Your task to perform on an android device: turn pop-ups off in chrome Image 0: 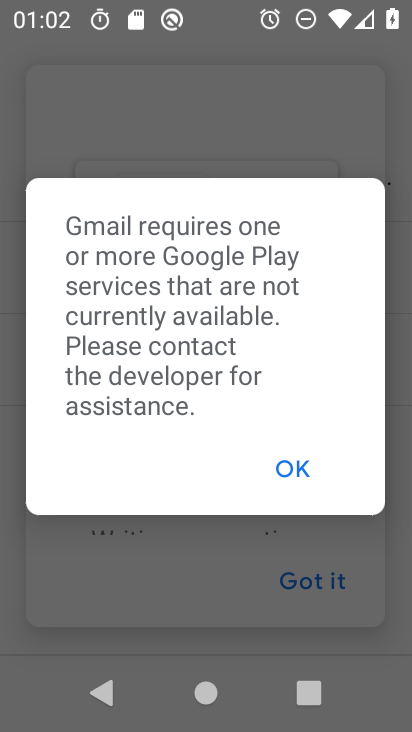
Step 0: press home button
Your task to perform on an android device: turn pop-ups off in chrome Image 1: 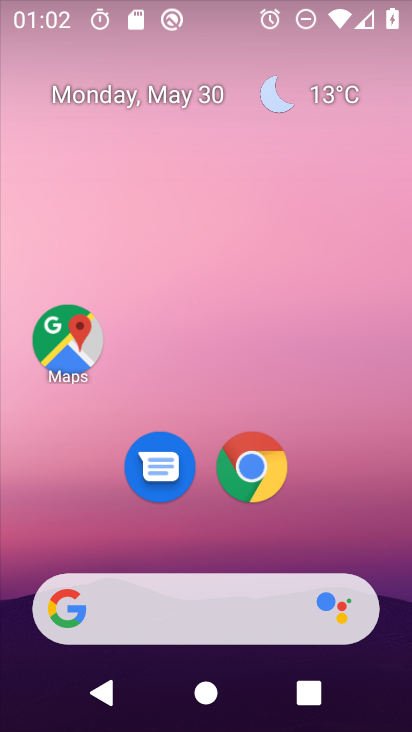
Step 1: click (245, 471)
Your task to perform on an android device: turn pop-ups off in chrome Image 2: 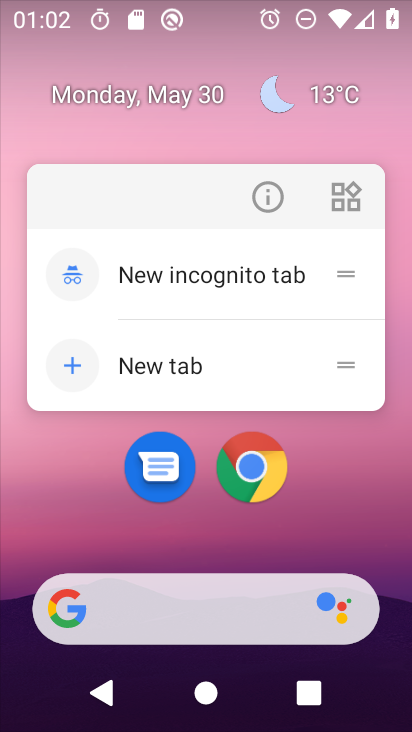
Step 2: click (228, 471)
Your task to perform on an android device: turn pop-ups off in chrome Image 3: 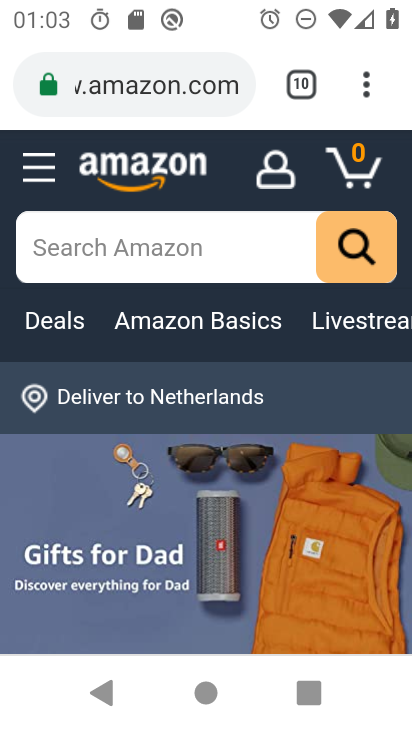
Step 3: drag from (370, 80) to (146, 523)
Your task to perform on an android device: turn pop-ups off in chrome Image 4: 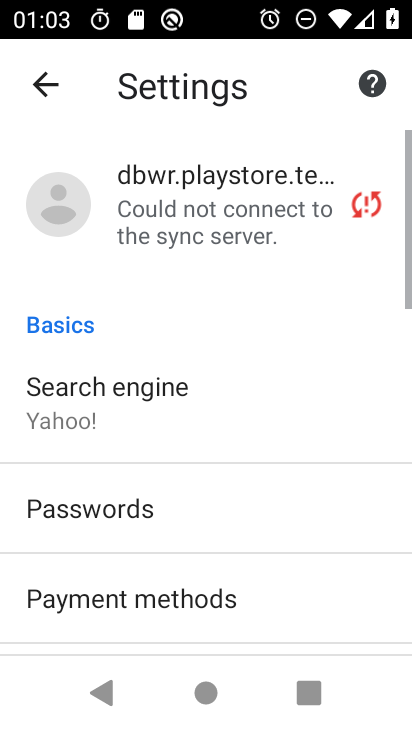
Step 4: drag from (208, 571) to (191, 255)
Your task to perform on an android device: turn pop-ups off in chrome Image 5: 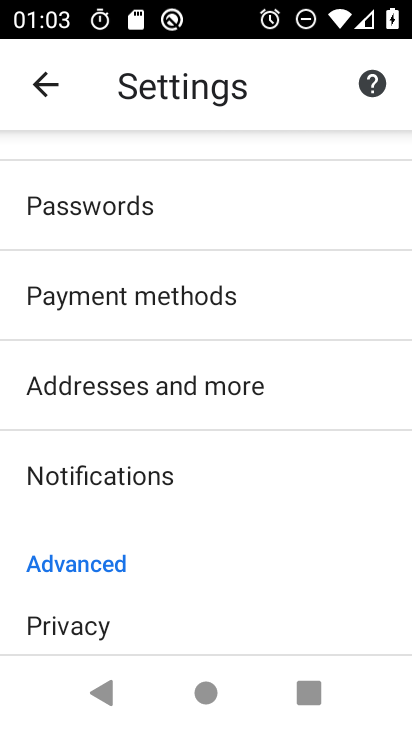
Step 5: click (186, 254)
Your task to perform on an android device: turn pop-ups off in chrome Image 6: 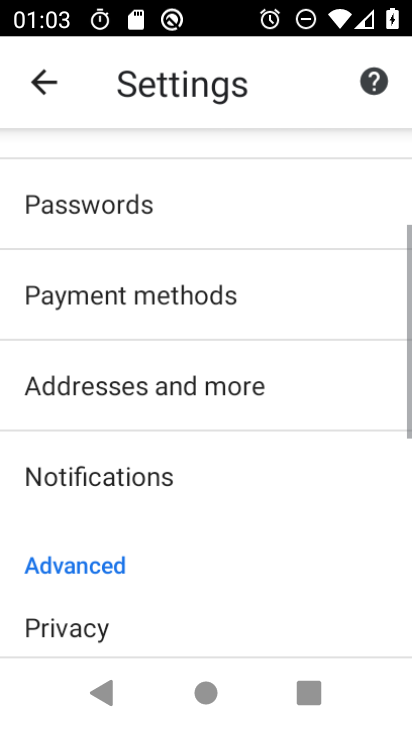
Step 6: drag from (187, 534) to (185, 298)
Your task to perform on an android device: turn pop-ups off in chrome Image 7: 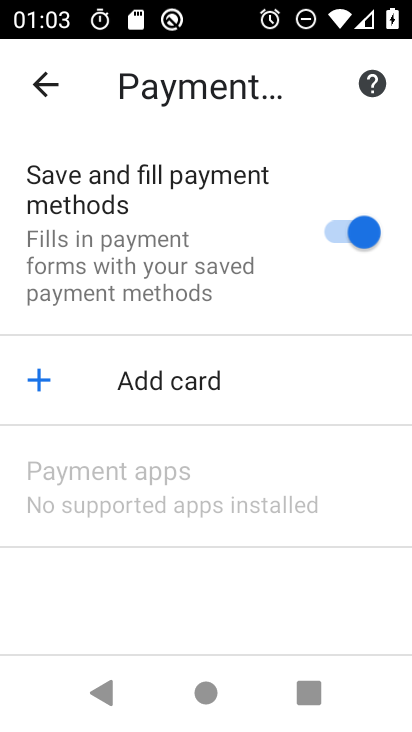
Step 7: click (49, 101)
Your task to perform on an android device: turn pop-ups off in chrome Image 8: 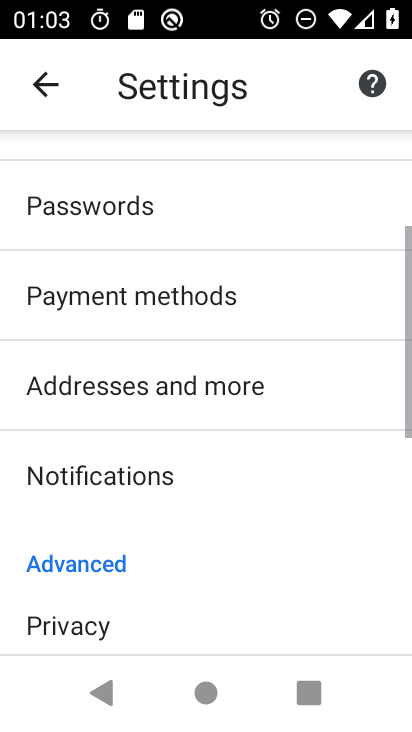
Step 8: drag from (214, 595) to (231, 261)
Your task to perform on an android device: turn pop-ups off in chrome Image 9: 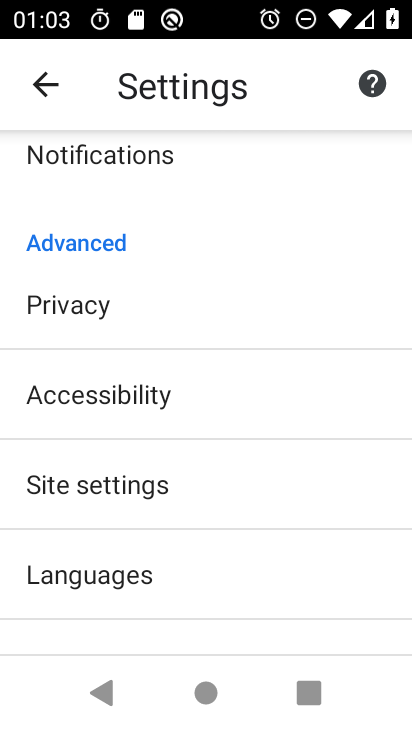
Step 9: click (189, 499)
Your task to perform on an android device: turn pop-ups off in chrome Image 10: 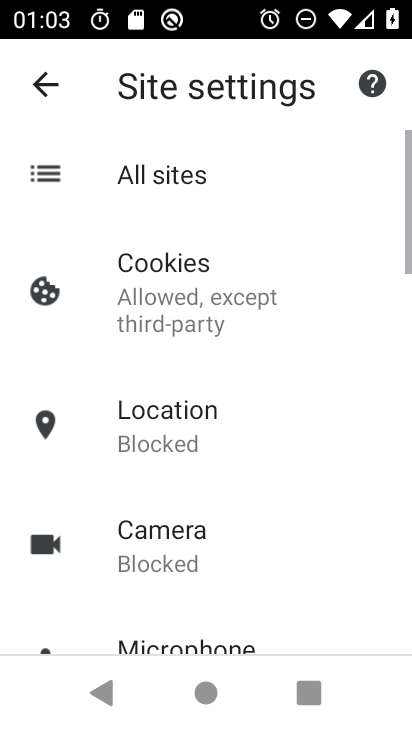
Step 10: drag from (235, 574) to (225, 240)
Your task to perform on an android device: turn pop-ups off in chrome Image 11: 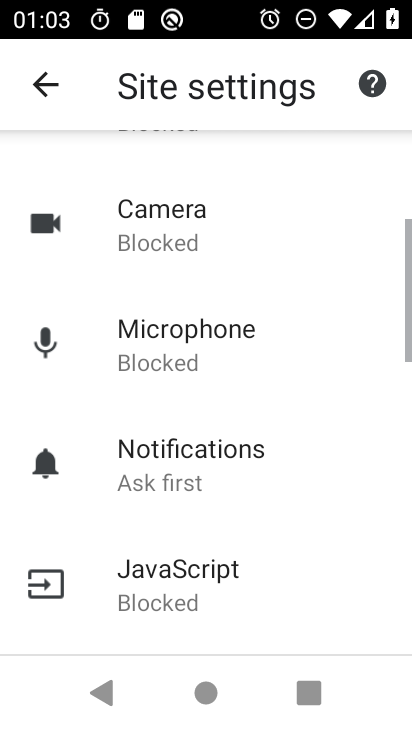
Step 11: drag from (227, 593) to (223, 304)
Your task to perform on an android device: turn pop-ups off in chrome Image 12: 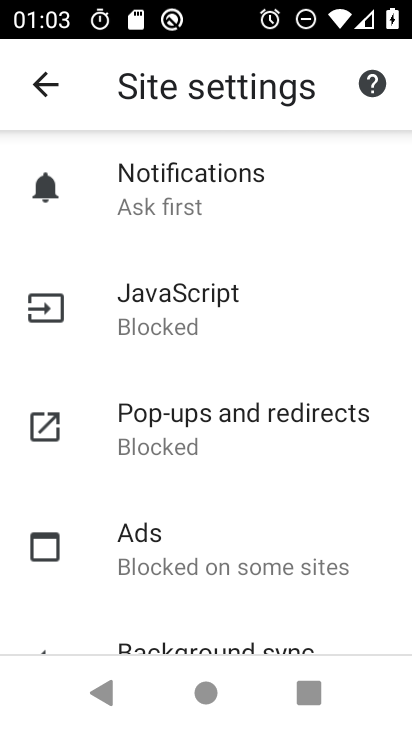
Step 12: click (224, 445)
Your task to perform on an android device: turn pop-ups off in chrome Image 13: 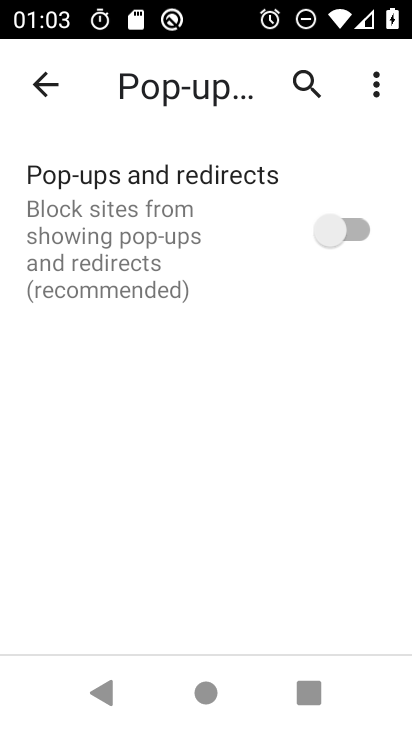
Step 13: task complete